Your task to perform on an android device: Search for pizza restaurants on Maps Image 0: 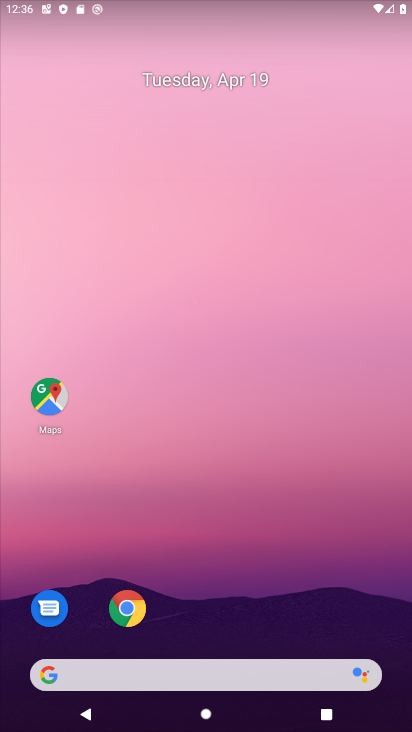
Step 0: click (286, 153)
Your task to perform on an android device: Search for pizza restaurants on Maps Image 1: 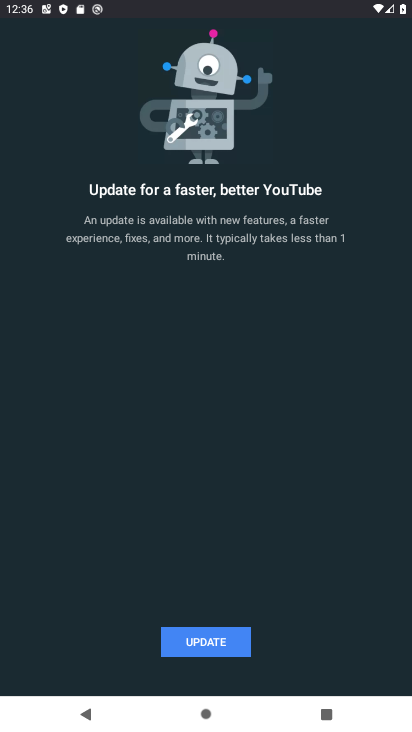
Step 1: press back button
Your task to perform on an android device: Search for pizza restaurants on Maps Image 2: 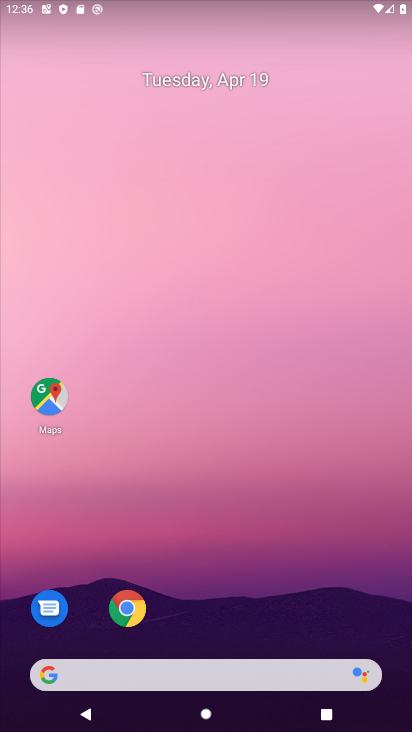
Step 2: drag from (184, 531) to (252, 51)
Your task to perform on an android device: Search for pizza restaurants on Maps Image 3: 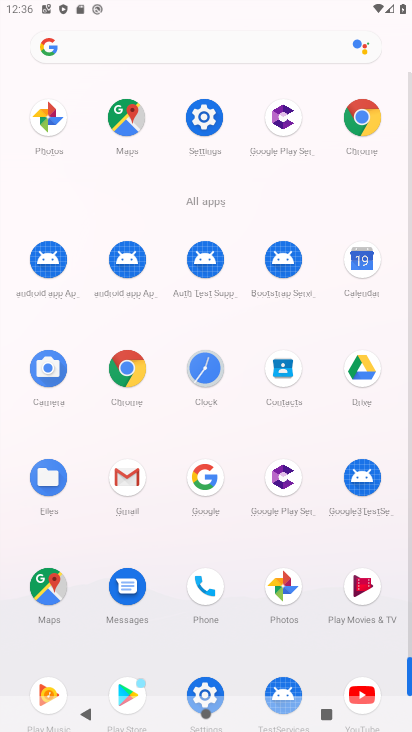
Step 3: click (120, 125)
Your task to perform on an android device: Search for pizza restaurants on Maps Image 4: 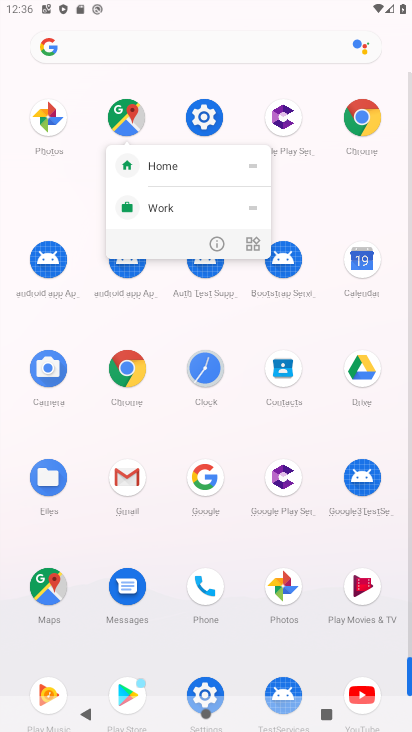
Step 4: click (138, 110)
Your task to perform on an android device: Search for pizza restaurants on Maps Image 5: 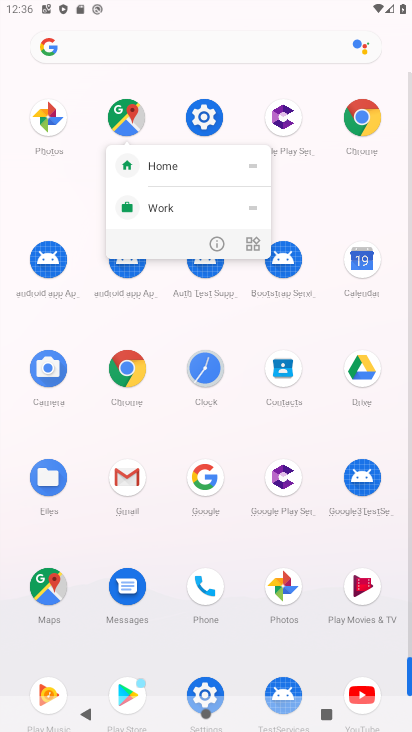
Step 5: click (128, 105)
Your task to perform on an android device: Search for pizza restaurants on Maps Image 6: 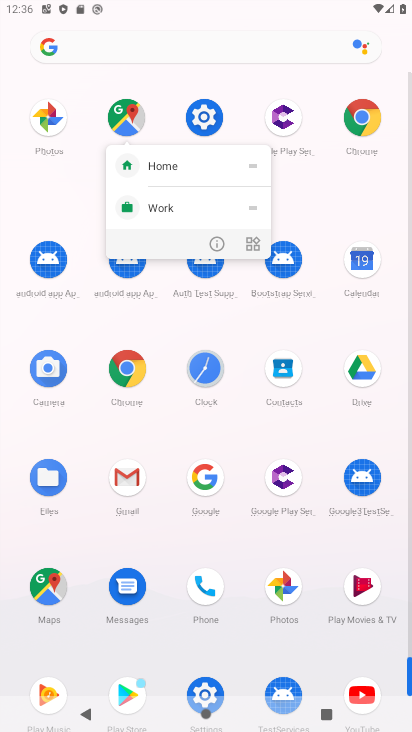
Step 6: click (123, 119)
Your task to perform on an android device: Search for pizza restaurants on Maps Image 7: 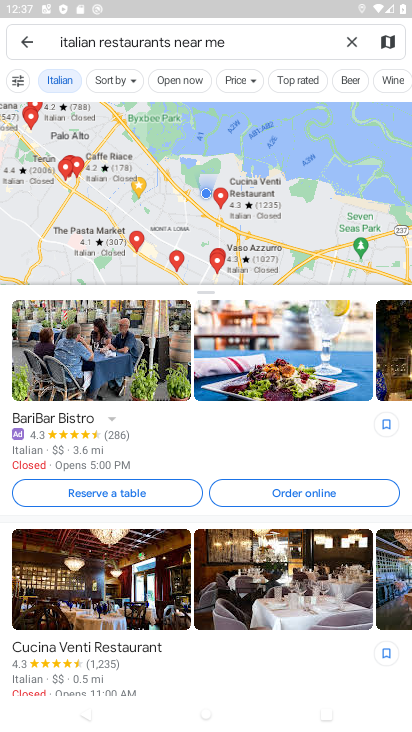
Step 7: click (350, 44)
Your task to perform on an android device: Search for pizza restaurants on Maps Image 8: 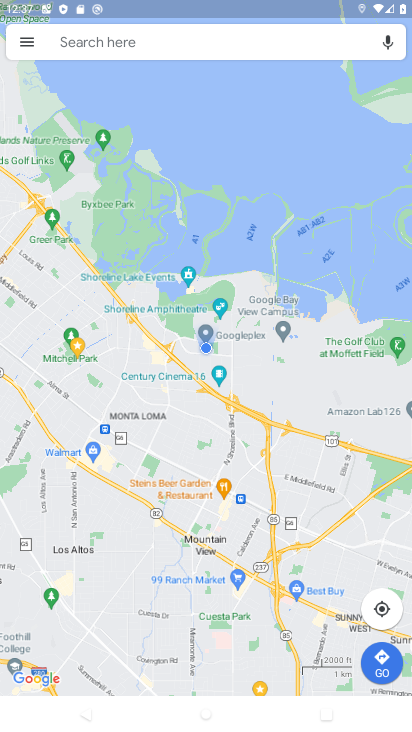
Step 8: click (257, 47)
Your task to perform on an android device: Search for pizza restaurants on Maps Image 9: 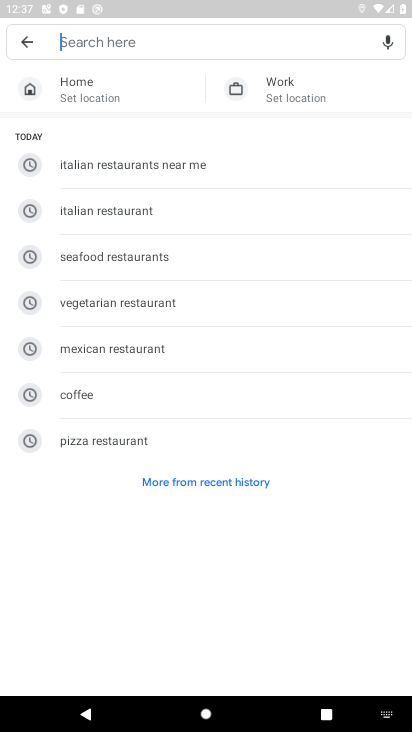
Step 9: type "Pizza restaurants "
Your task to perform on an android device: Search for pizza restaurants on Maps Image 10: 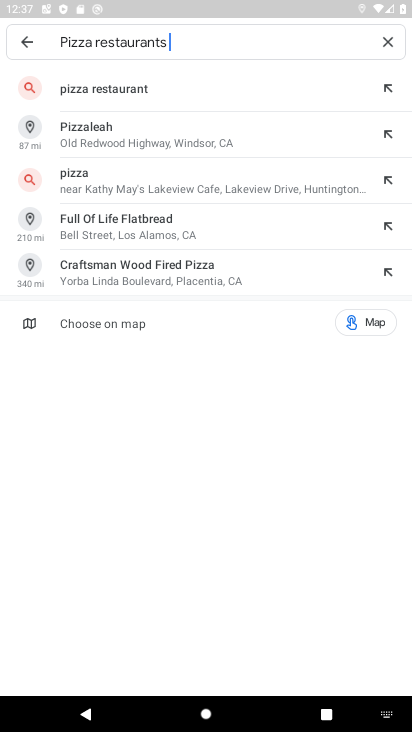
Step 10: click (122, 82)
Your task to perform on an android device: Search for pizza restaurants on Maps Image 11: 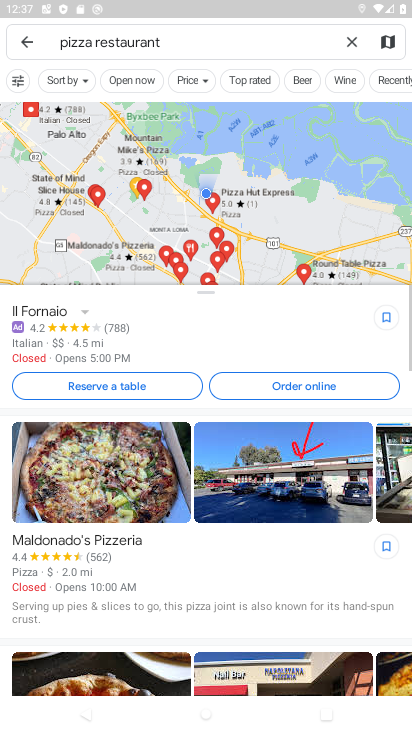
Step 11: task complete